Your task to perform on an android device: turn on javascript in the chrome app Image 0: 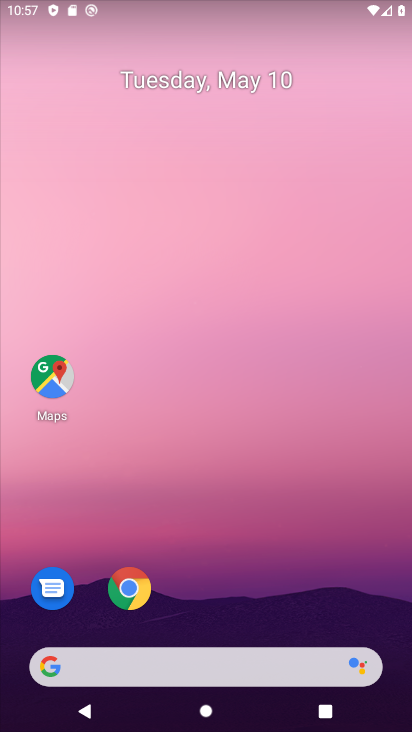
Step 0: click (158, 130)
Your task to perform on an android device: turn on javascript in the chrome app Image 1: 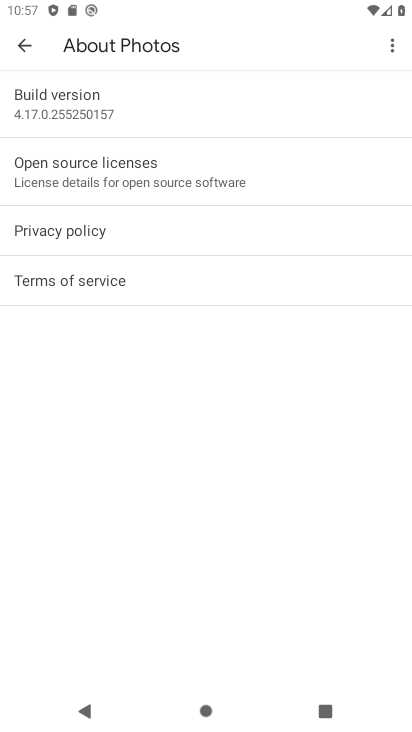
Step 1: click (16, 48)
Your task to perform on an android device: turn on javascript in the chrome app Image 2: 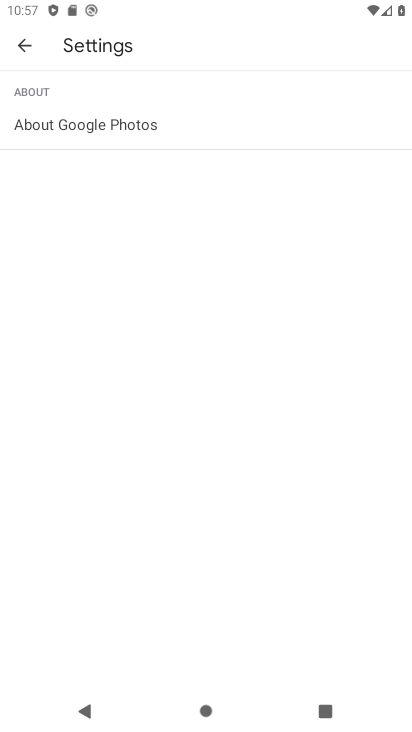
Step 2: click (27, 48)
Your task to perform on an android device: turn on javascript in the chrome app Image 3: 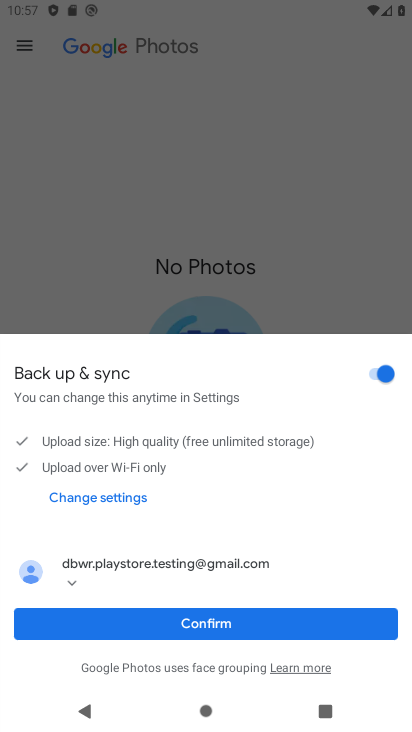
Step 3: click (231, 610)
Your task to perform on an android device: turn on javascript in the chrome app Image 4: 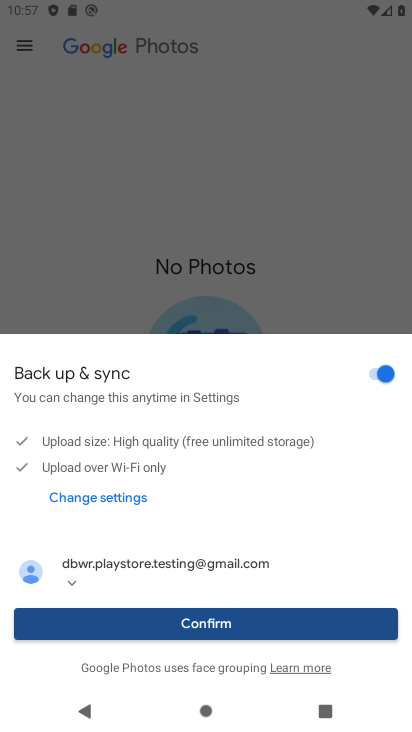
Step 4: click (235, 619)
Your task to perform on an android device: turn on javascript in the chrome app Image 5: 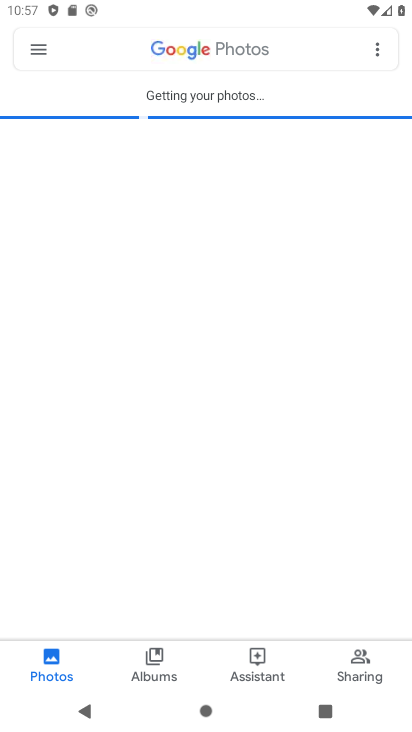
Step 5: click (27, 47)
Your task to perform on an android device: turn on javascript in the chrome app Image 6: 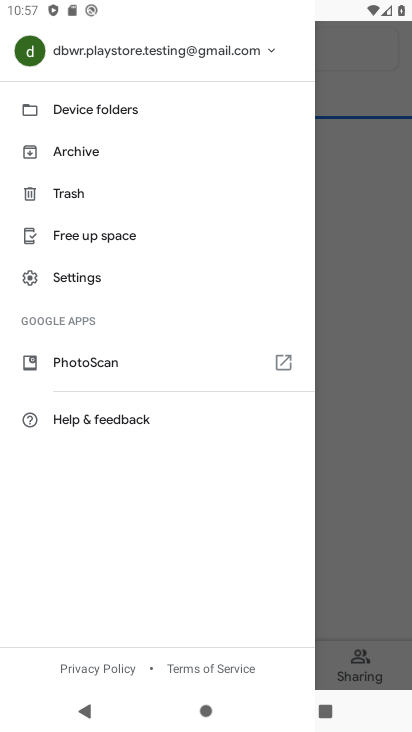
Step 6: press back button
Your task to perform on an android device: turn on javascript in the chrome app Image 7: 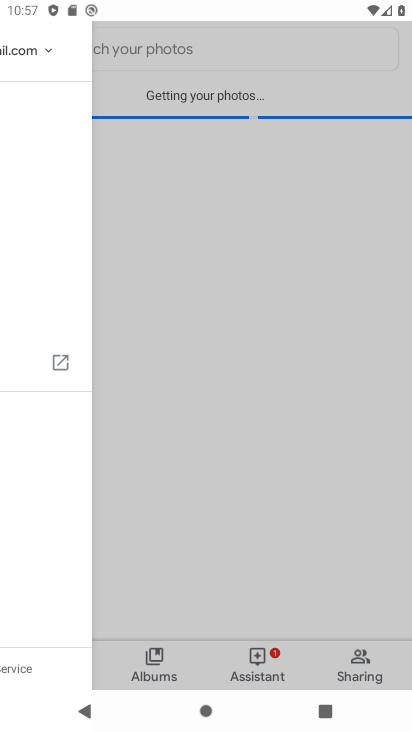
Step 7: press back button
Your task to perform on an android device: turn on javascript in the chrome app Image 8: 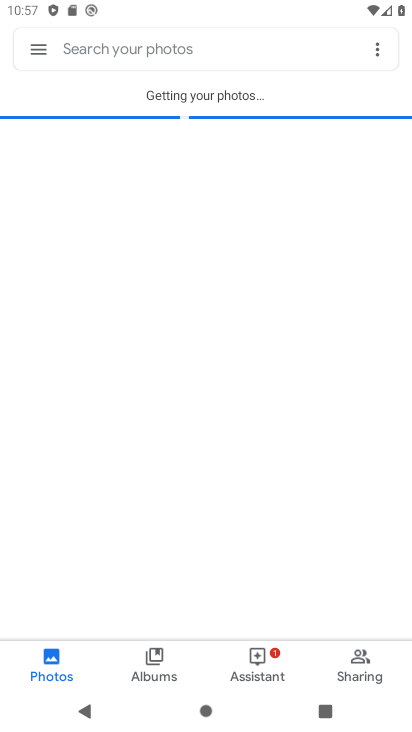
Step 8: press back button
Your task to perform on an android device: turn on javascript in the chrome app Image 9: 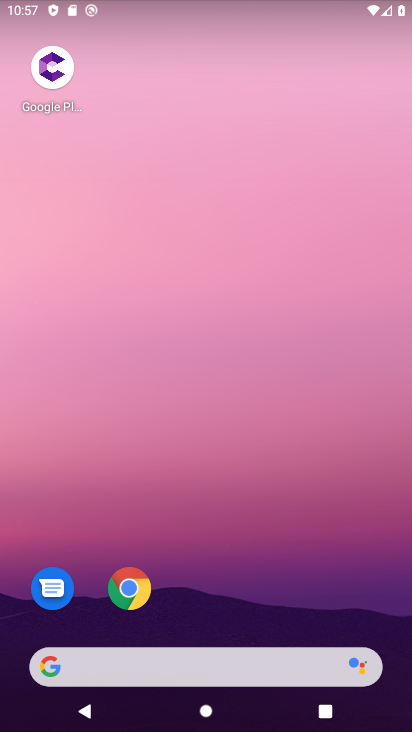
Step 9: drag from (250, 656) to (74, 66)
Your task to perform on an android device: turn on javascript in the chrome app Image 10: 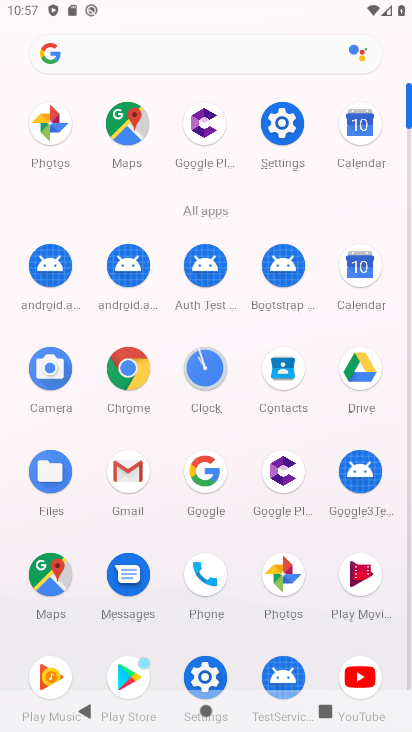
Step 10: click (138, 371)
Your task to perform on an android device: turn on javascript in the chrome app Image 11: 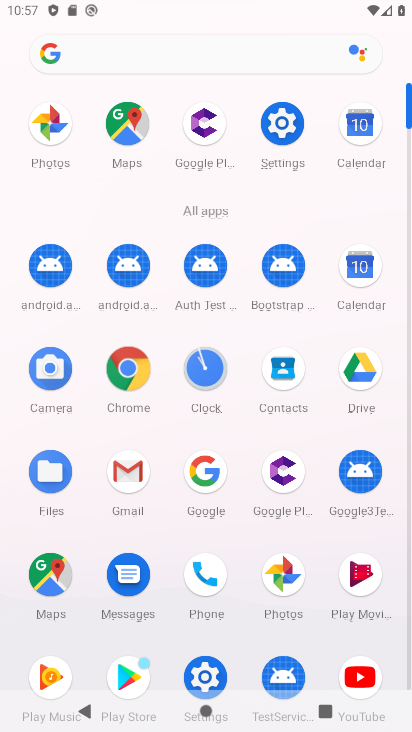
Step 11: click (138, 371)
Your task to perform on an android device: turn on javascript in the chrome app Image 12: 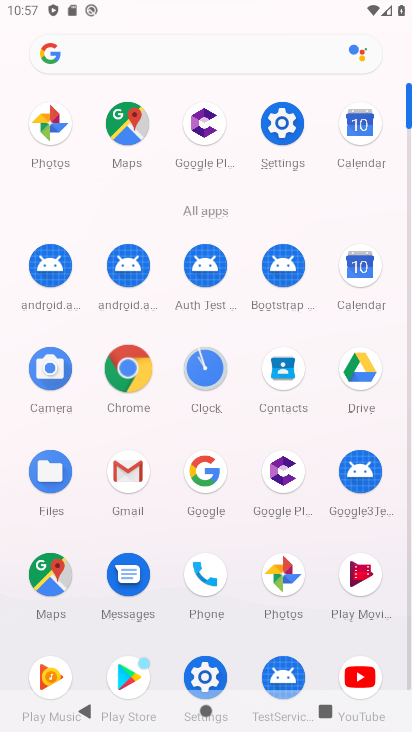
Step 12: click (138, 371)
Your task to perform on an android device: turn on javascript in the chrome app Image 13: 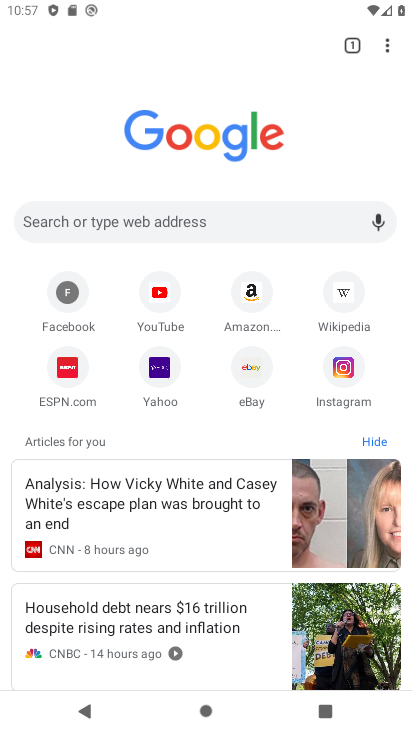
Step 13: drag from (381, 40) to (208, 379)
Your task to perform on an android device: turn on javascript in the chrome app Image 14: 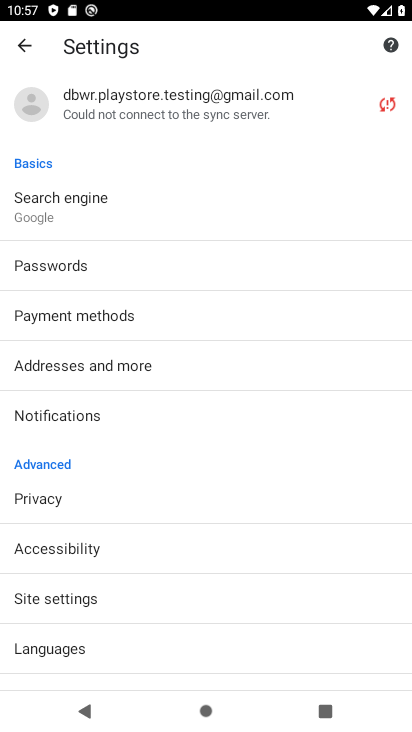
Step 14: drag from (147, 466) to (124, 249)
Your task to perform on an android device: turn on javascript in the chrome app Image 15: 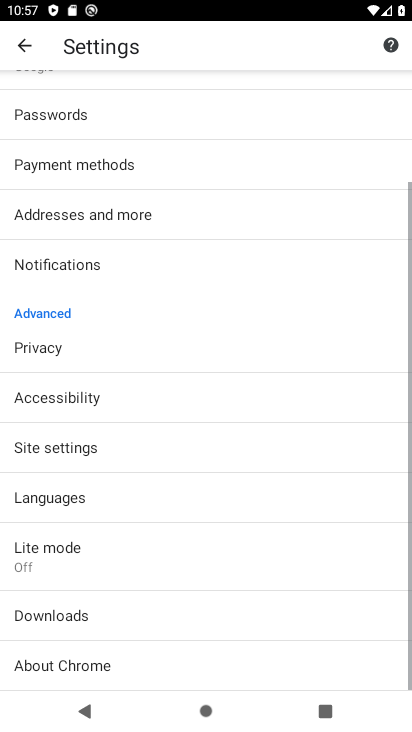
Step 15: drag from (156, 535) to (137, 53)
Your task to perform on an android device: turn on javascript in the chrome app Image 16: 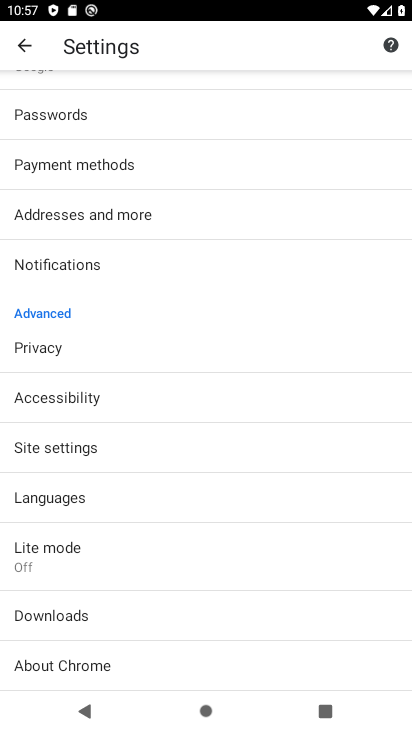
Step 16: click (50, 447)
Your task to perform on an android device: turn on javascript in the chrome app Image 17: 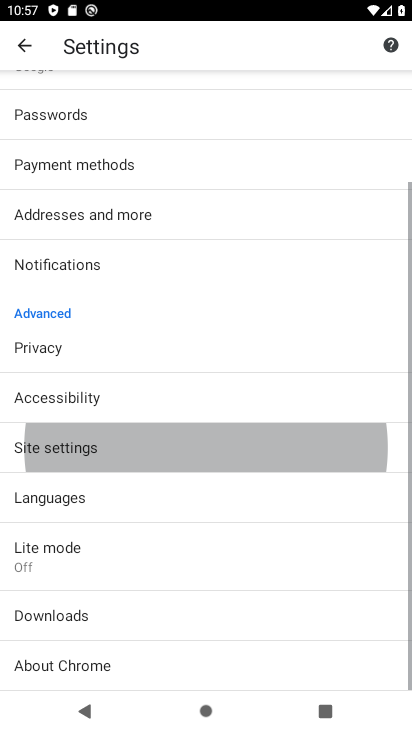
Step 17: click (49, 446)
Your task to perform on an android device: turn on javascript in the chrome app Image 18: 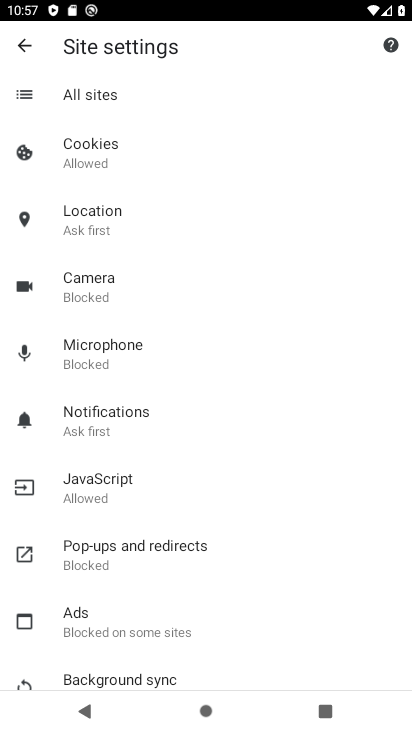
Step 18: click (97, 481)
Your task to perform on an android device: turn on javascript in the chrome app Image 19: 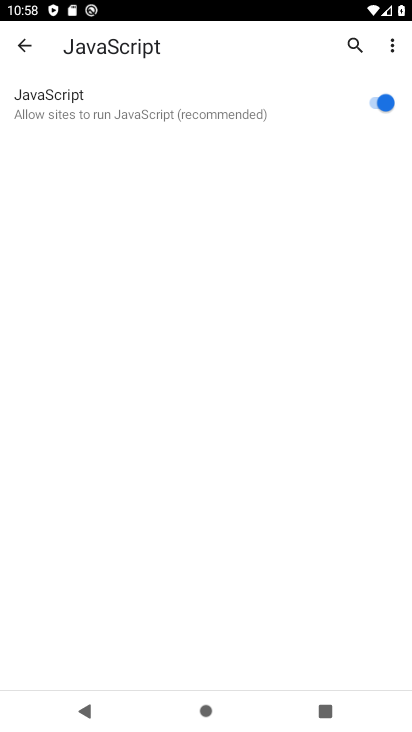
Step 19: task complete